Your task to perform on an android device: Open network settings Image 0: 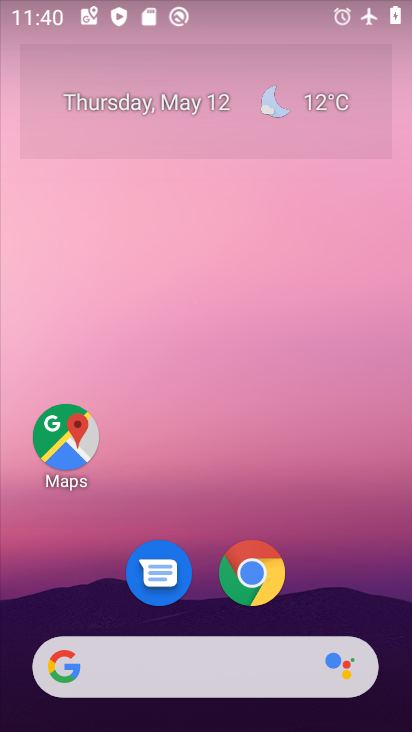
Step 0: drag from (159, 710) to (315, 39)
Your task to perform on an android device: Open network settings Image 1: 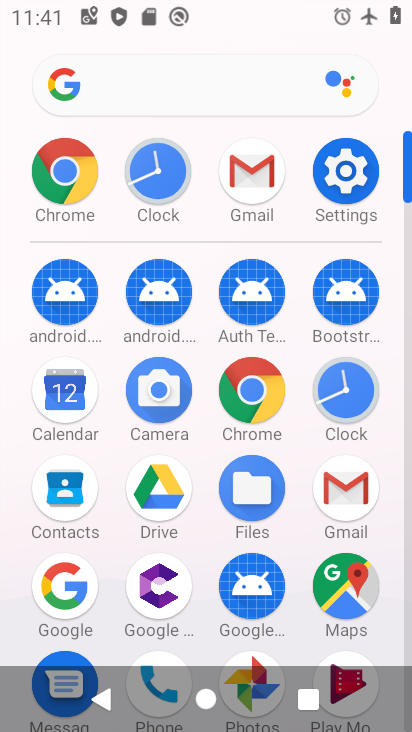
Step 1: click (327, 169)
Your task to perform on an android device: Open network settings Image 2: 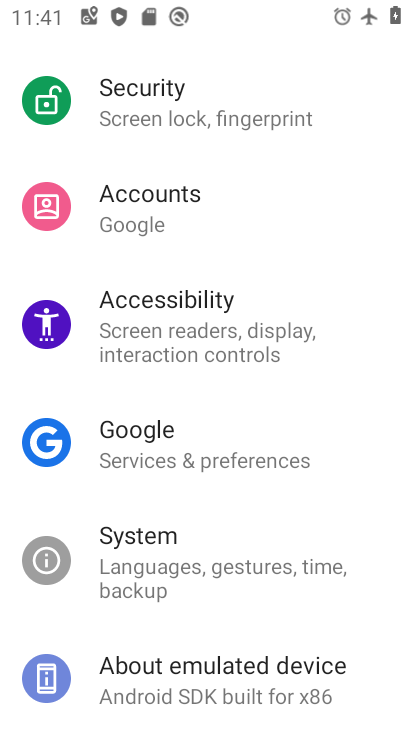
Step 2: drag from (288, 235) to (208, 602)
Your task to perform on an android device: Open network settings Image 3: 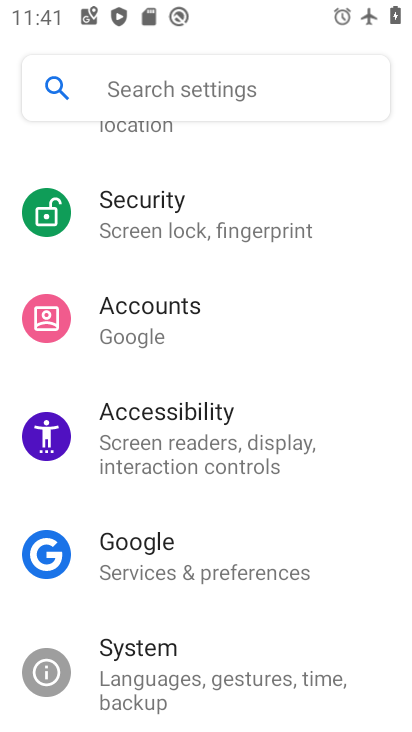
Step 3: drag from (253, 161) to (212, 588)
Your task to perform on an android device: Open network settings Image 4: 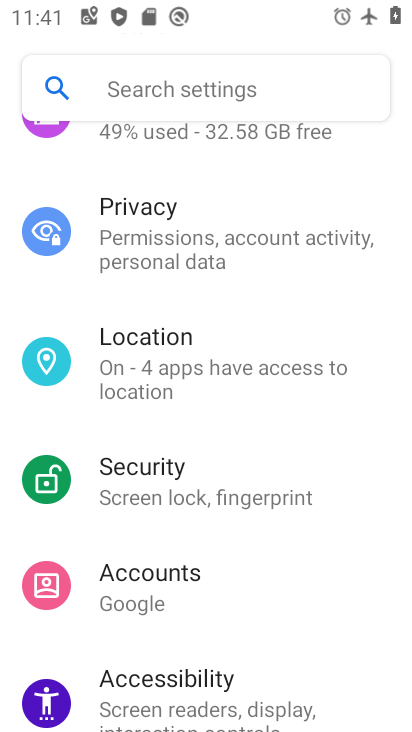
Step 4: drag from (266, 239) to (281, 729)
Your task to perform on an android device: Open network settings Image 5: 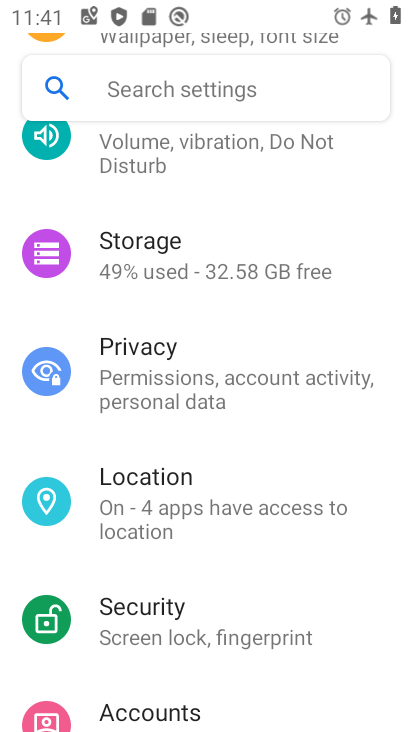
Step 5: drag from (308, 167) to (228, 604)
Your task to perform on an android device: Open network settings Image 6: 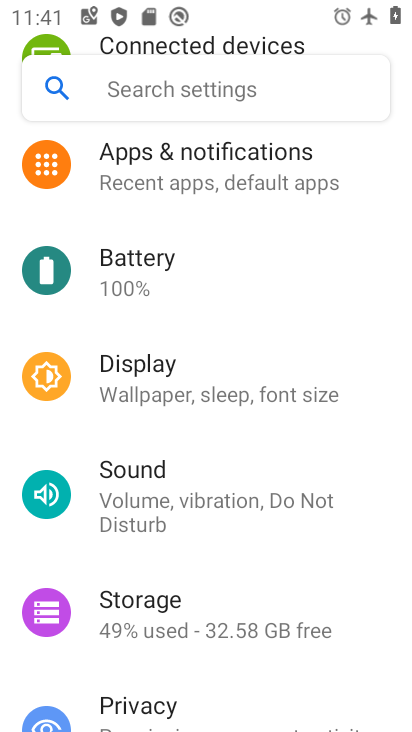
Step 6: drag from (283, 165) to (227, 536)
Your task to perform on an android device: Open network settings Image 7: 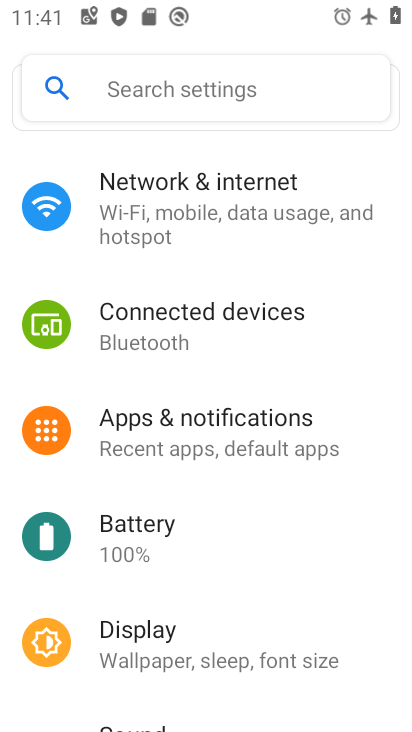
Step 7: click (266, 203)
Your task to perform on an android device: Open network settings Image 8: 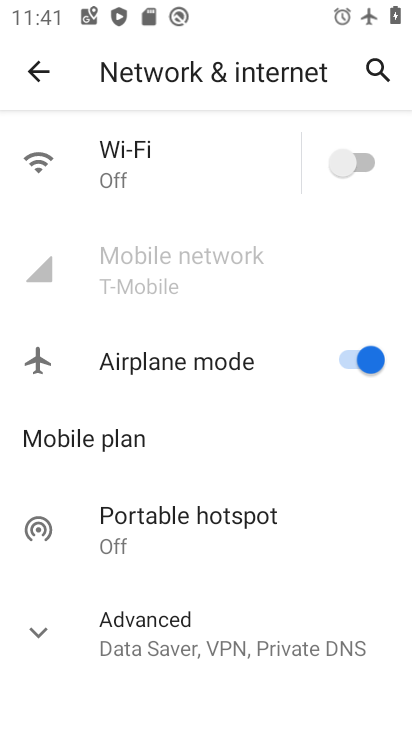
Step 8: task complete